Your task to perform on an android device: What's the weather today? Image 0: 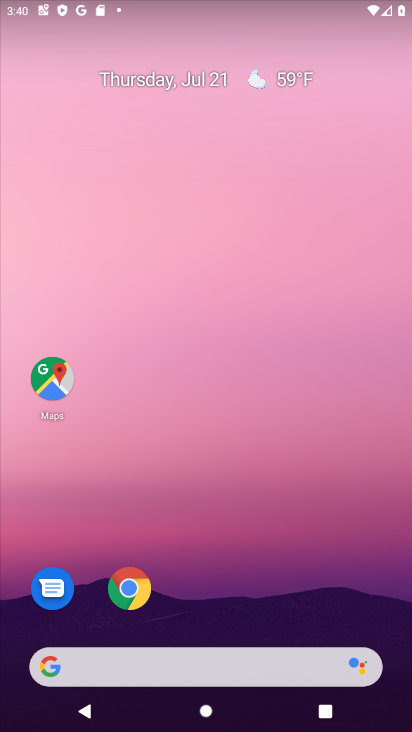
Step 0: drag from (229, 724) to (199, 137)
Your task to perform on an android device: What's the weather today? Image 1: 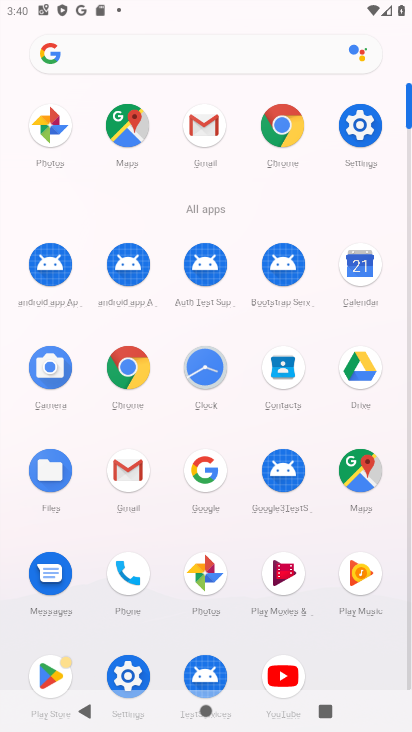
Step 1: click (204, 472)
Your task to perform on an android device: What's the weather today? Image 2: 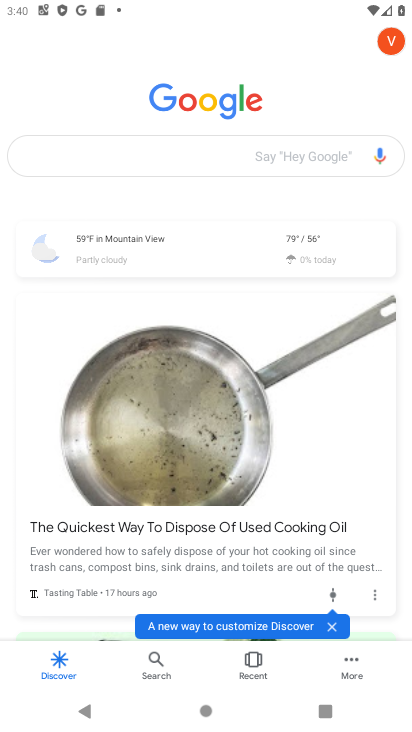
Step 2: click (149, 236)
Your task to perform on an android device: What's the weather today? Image 3: 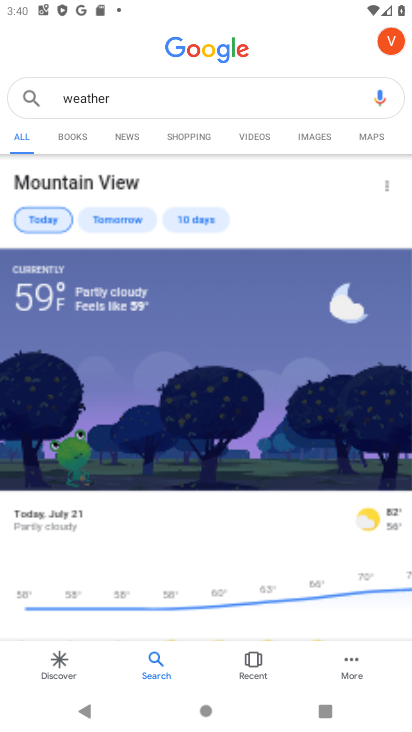
Step 3: click (44, 216)
Your task to perform on an android device: What's the weather today? Image 4: 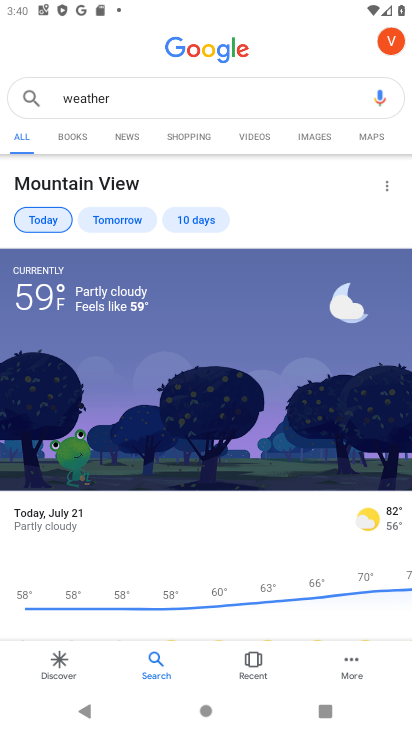
Step 4: task complete